Your task to perform on an android device: open app "Adobe Acrobat Reader" (install if not already installed) Image 0: 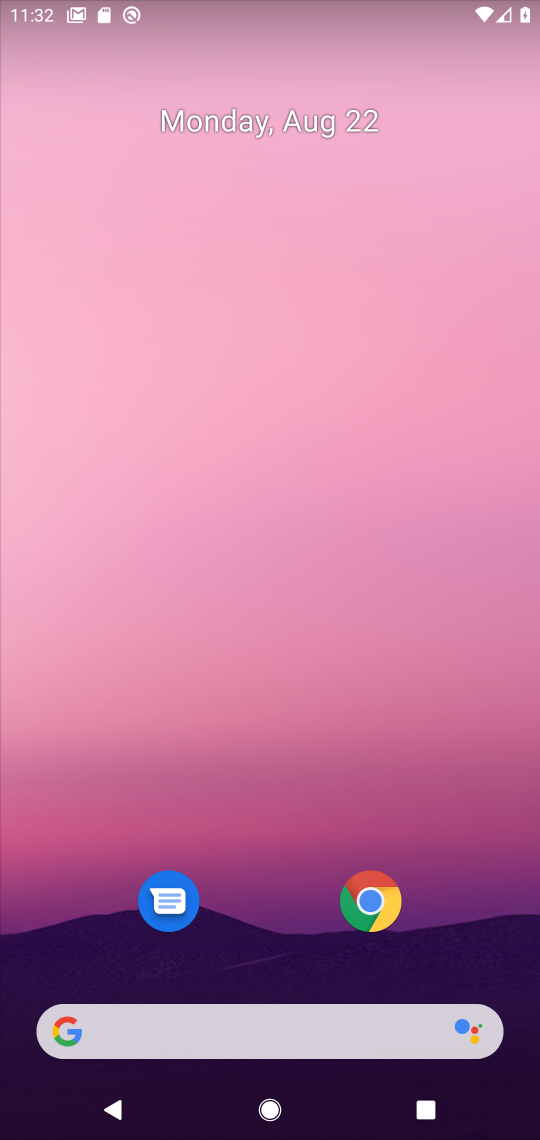
Step 0: press home button
Your task to perform on an android device: open app "Adobe Acrobat Reader" (install if not already installed) Image 1: 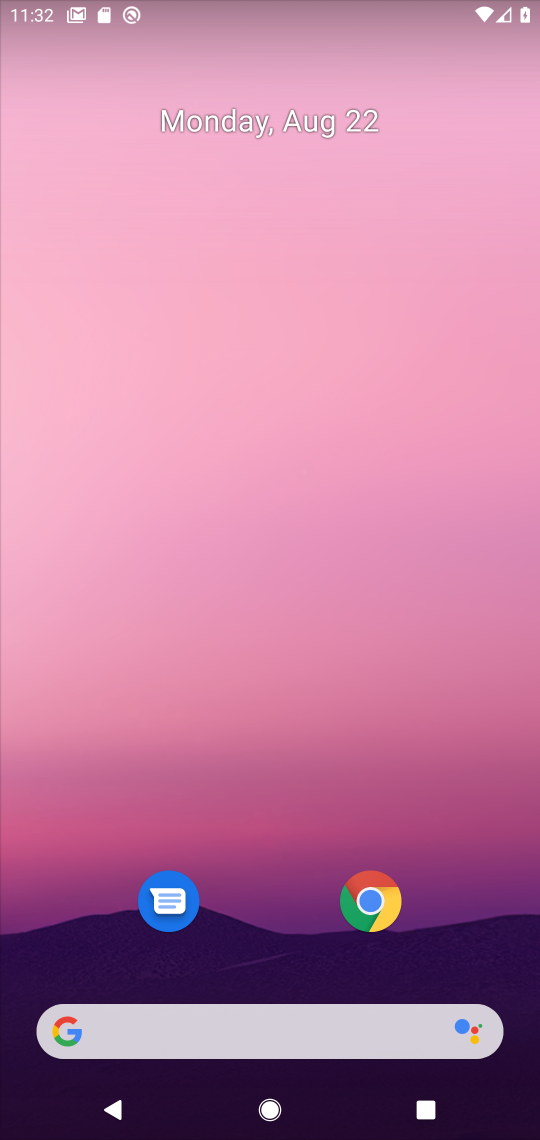
Step 1: drag from (266, 989) to (216, 0)
Your task to perform on an android device: open app "Adobe Acrobat Reader" (install if not already installed) Image 2: 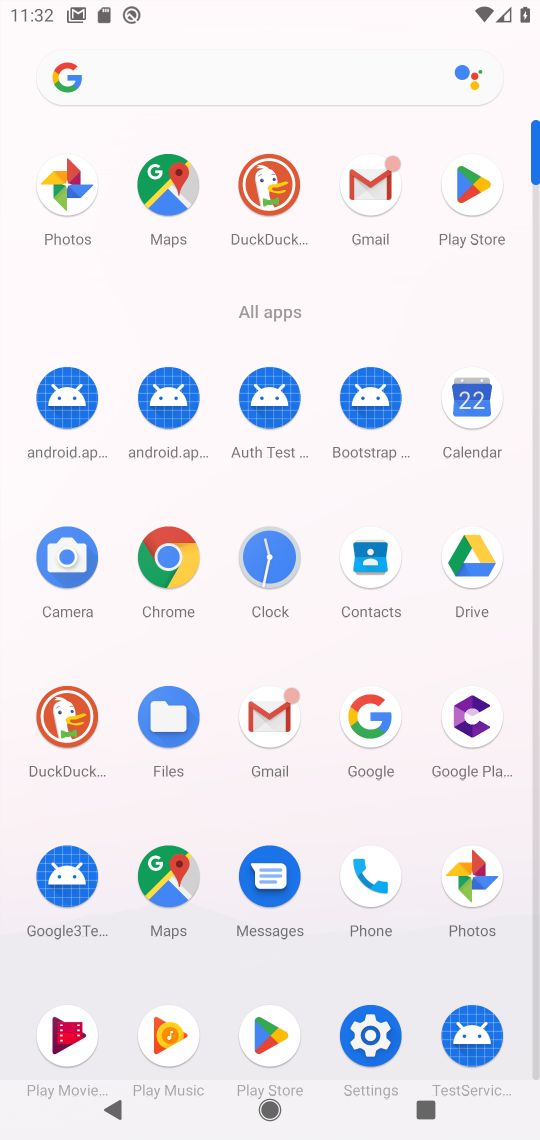
Step 2: click (482, 196)
Your task to perform on an android device: open app "Adobe Acrobat Reader" (install if not already installed) Image 3: 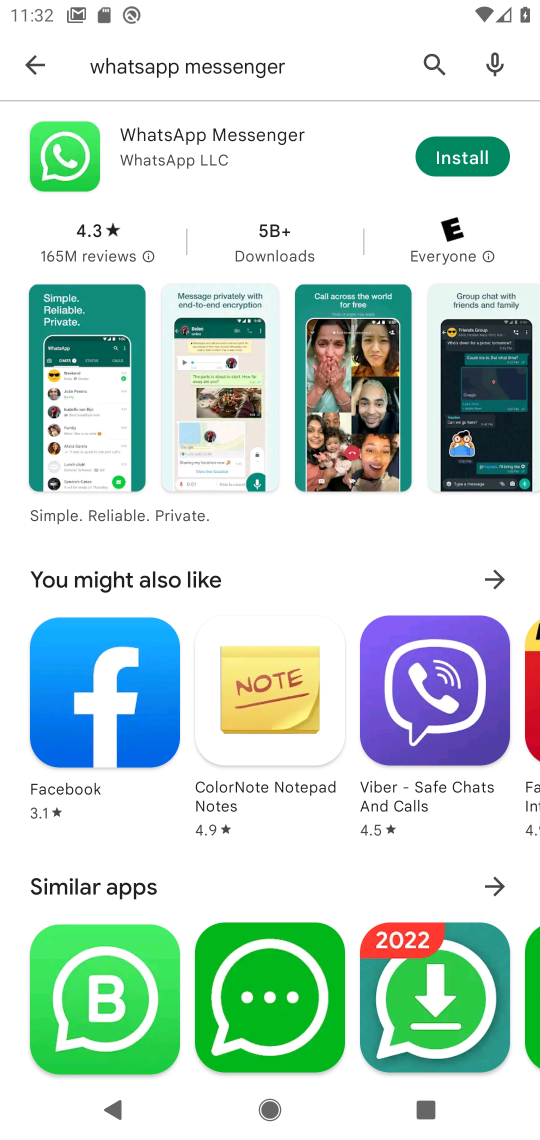
Step 3: click (314, 78)
Your task to perform on an android device: open app "Adobe Acrobat Reader" (install if not already installed) Image 4: 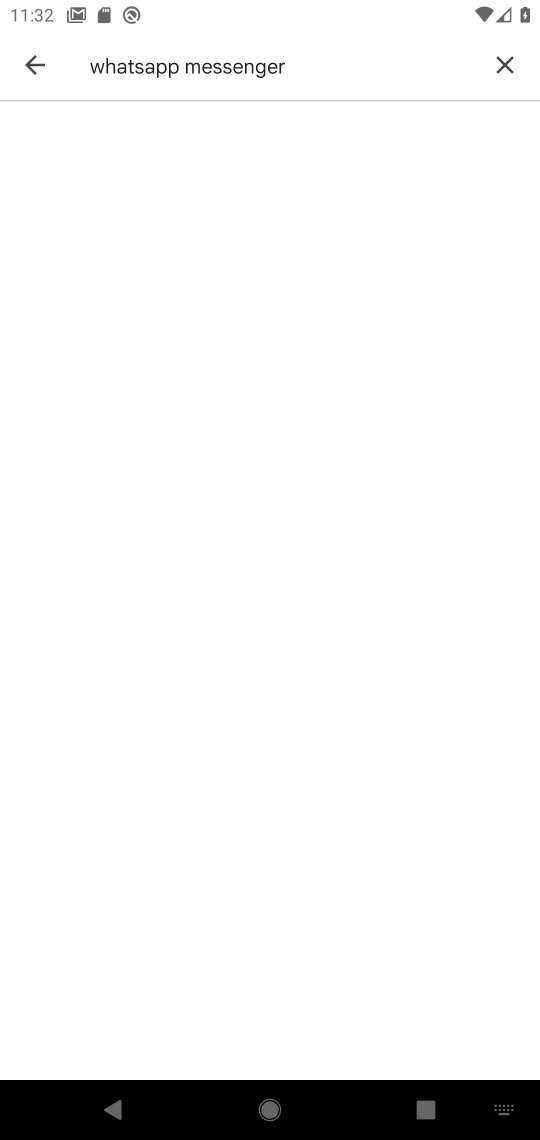
Step 4: click (506, 58)
Your task to perform on an android device: open app "Adobe Acrobat Reader" (install if not already installed) Image 5: 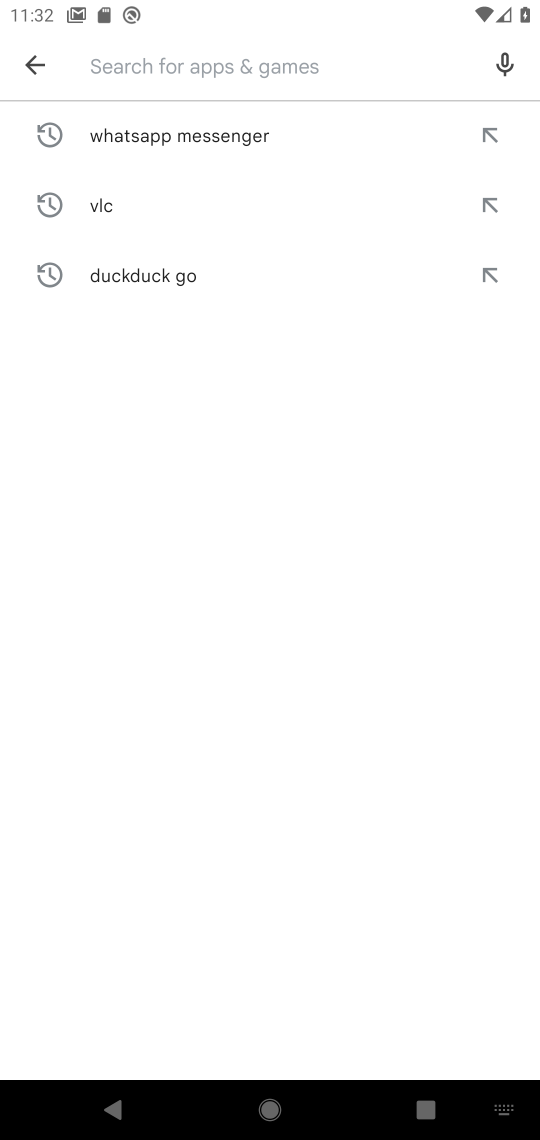
Step 5: type "Adobe acrobat reader"
Your task to perform on an android device: open app "Adobe Acrobat Reader" (install if not already installed) Image 6: 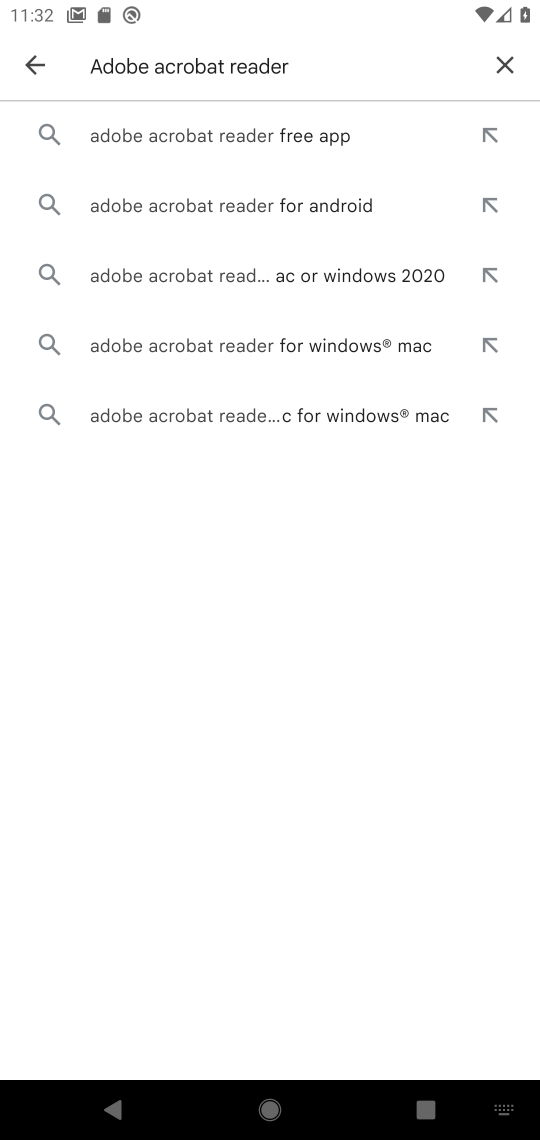
Step 6: click (172, 126)
Your task to perform on an android device: open app "Adobe Acrobat Reader" (install if not already installed) Image 7: 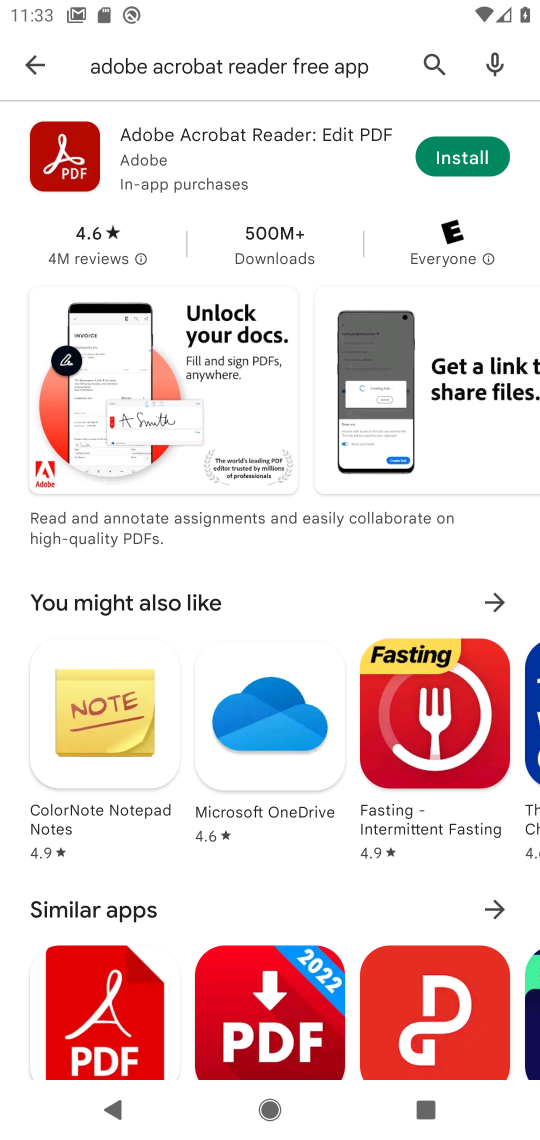
Step 7: click (477, 154)
Your task to perform on an android device: open app "Adobe Acrobat Reader" (install if not already installed) Image 8: 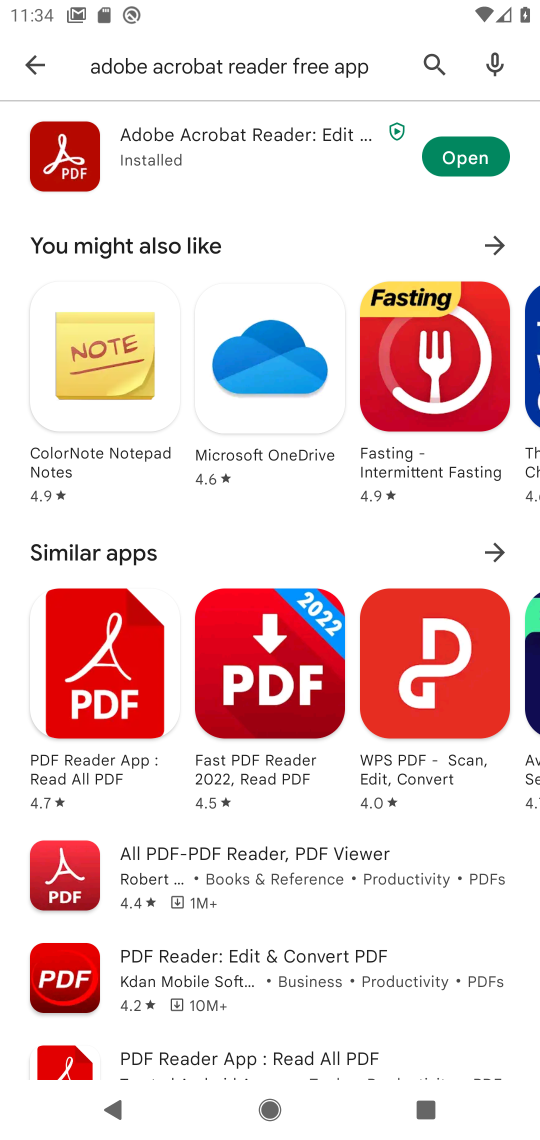
Step 8: click (450, 152)
Your task to perform on an android device: open app "Adobe Acrobat Reader" (install if not already installed) Image 9: 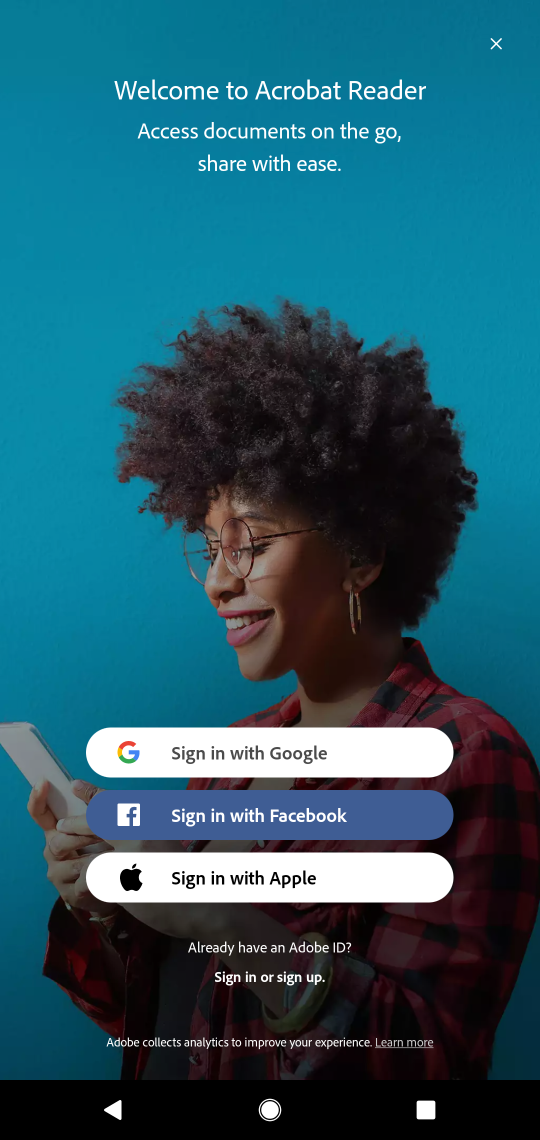
Step 9: click (299, 750)
Your task to perform on an android device: open app "Adobe Acrobat Reader" (install if not already installed) Image 10: 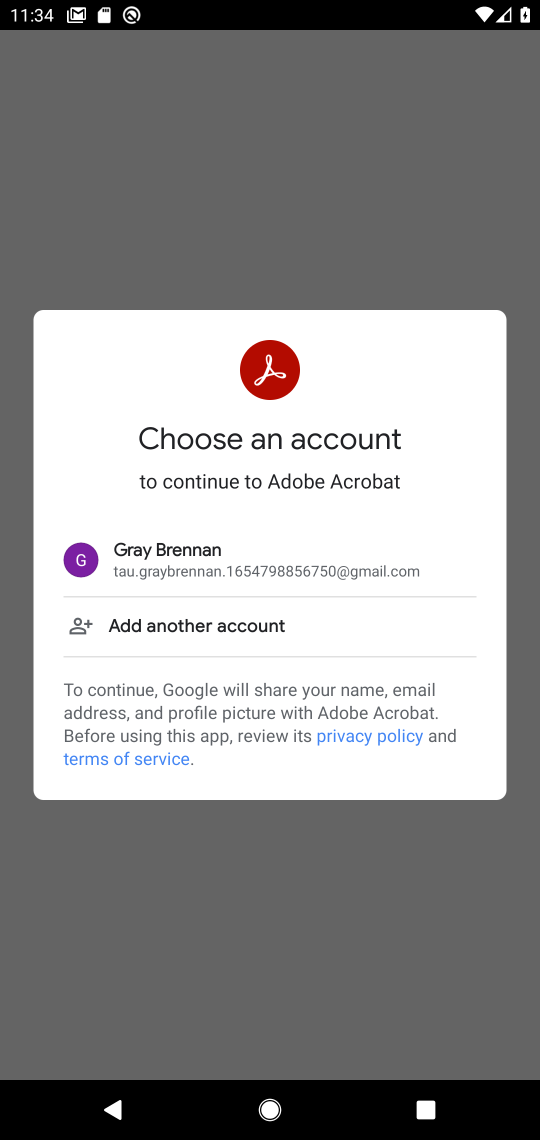
Step 10: click (290, 567)
Your task to perform on an android device: open app "Adobe Acrobat Reader" (install if not already installed) Image 11: 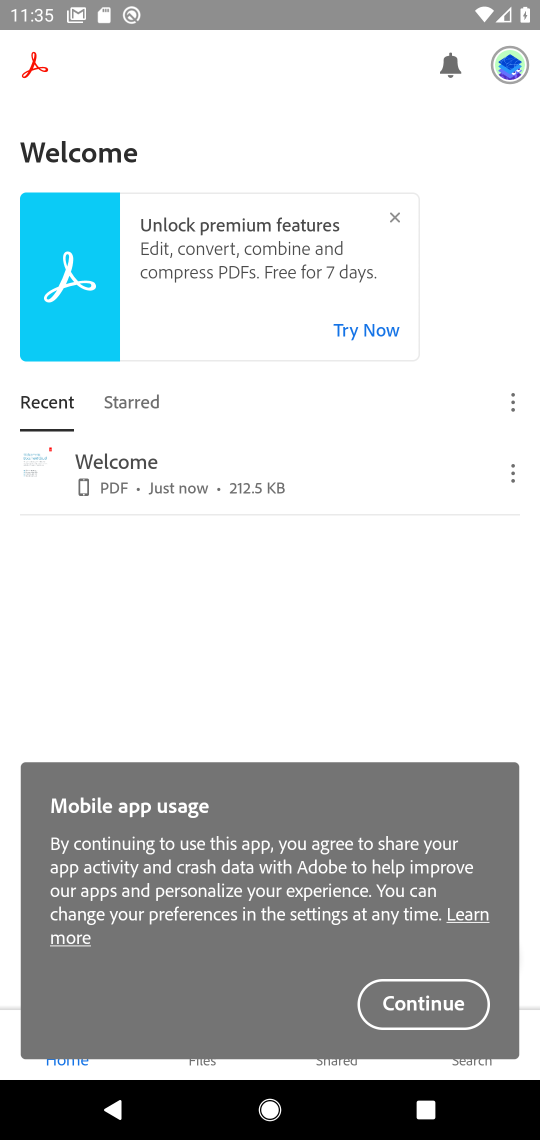
Step 11: task complete